Your task to perform on an android device: Open the calendar and show me this week's events? Image 0: 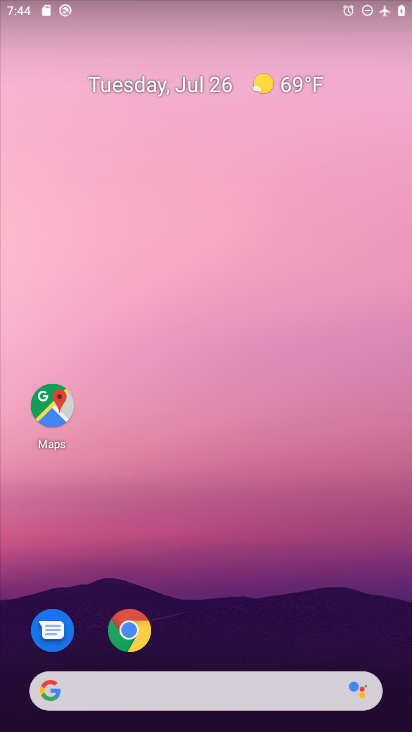
Step 0: drag from (275, 612) to (238, 190)
Your task to perform on an android device: Open the calendar and show me this week's events? Image 1: 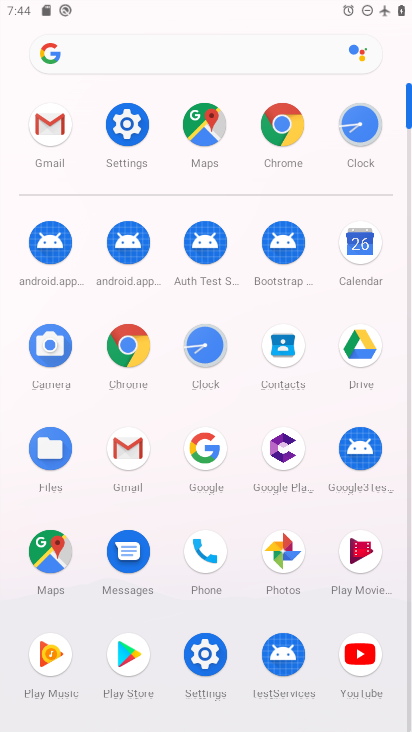
Step 1: click (358, 264)
Your task to perform on an android device: Open the calendar and show me this week's events? Image 2: 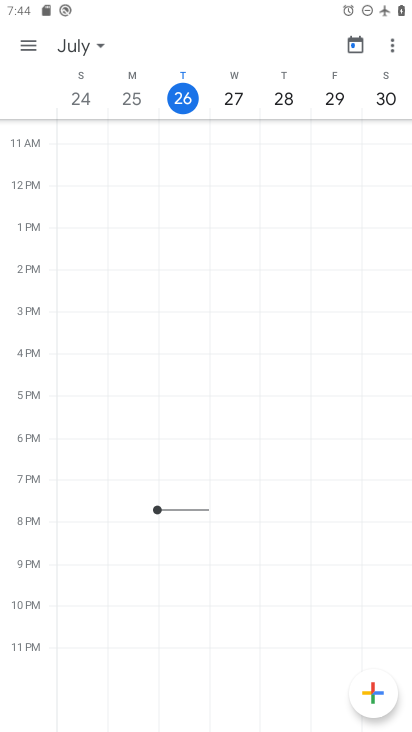
Step 2: task complete